Your task to perform on an android device: Go to display settings Image 0: 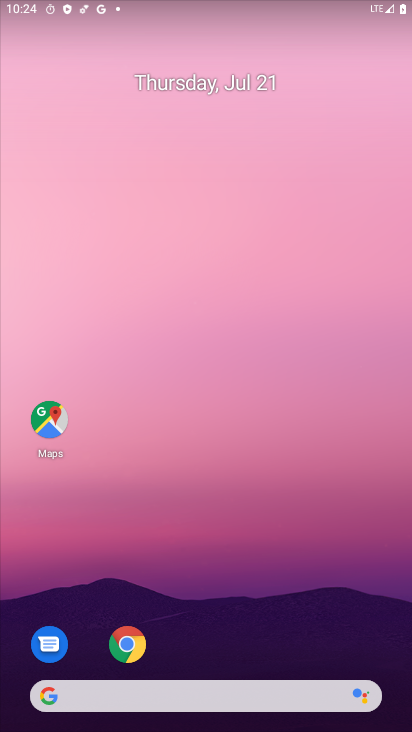
Step 0: drag from (230, 659) to (212, 0)
Your task to perform on an android device: Go to display settings Image 1: 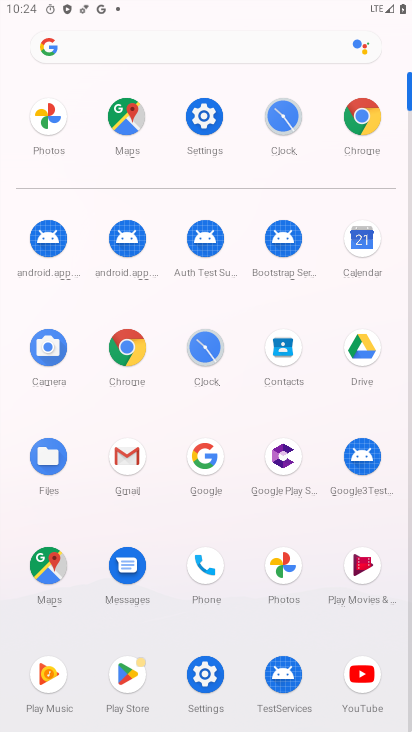
Step 1: click (202, 112)
Your task to perform on an android device: Go to display settings Image 2: 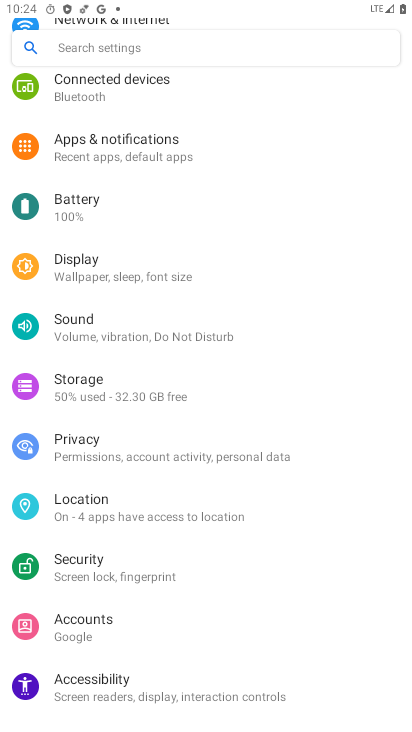
Step 2: click (107, 254)
Your task to perform on an android device: Go to display settings Image 3: 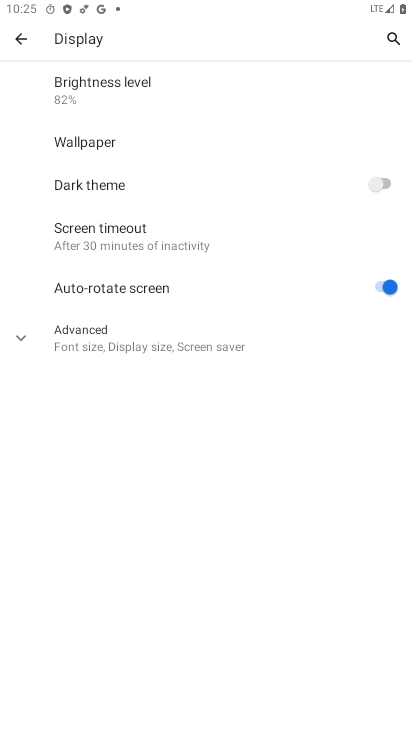
Step 3: click (28, 331)
Your task to perform on an android device: Go to display settings Image 4: 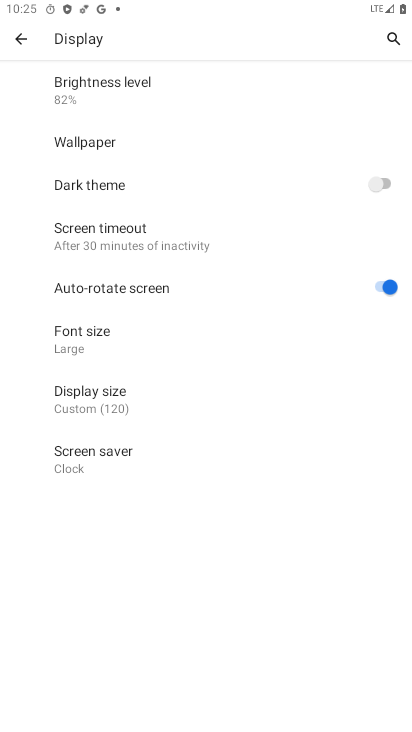
Step 4: task complete